Your task to perform on an android device: open the mobile data screen to see how much data has been used Image 0: 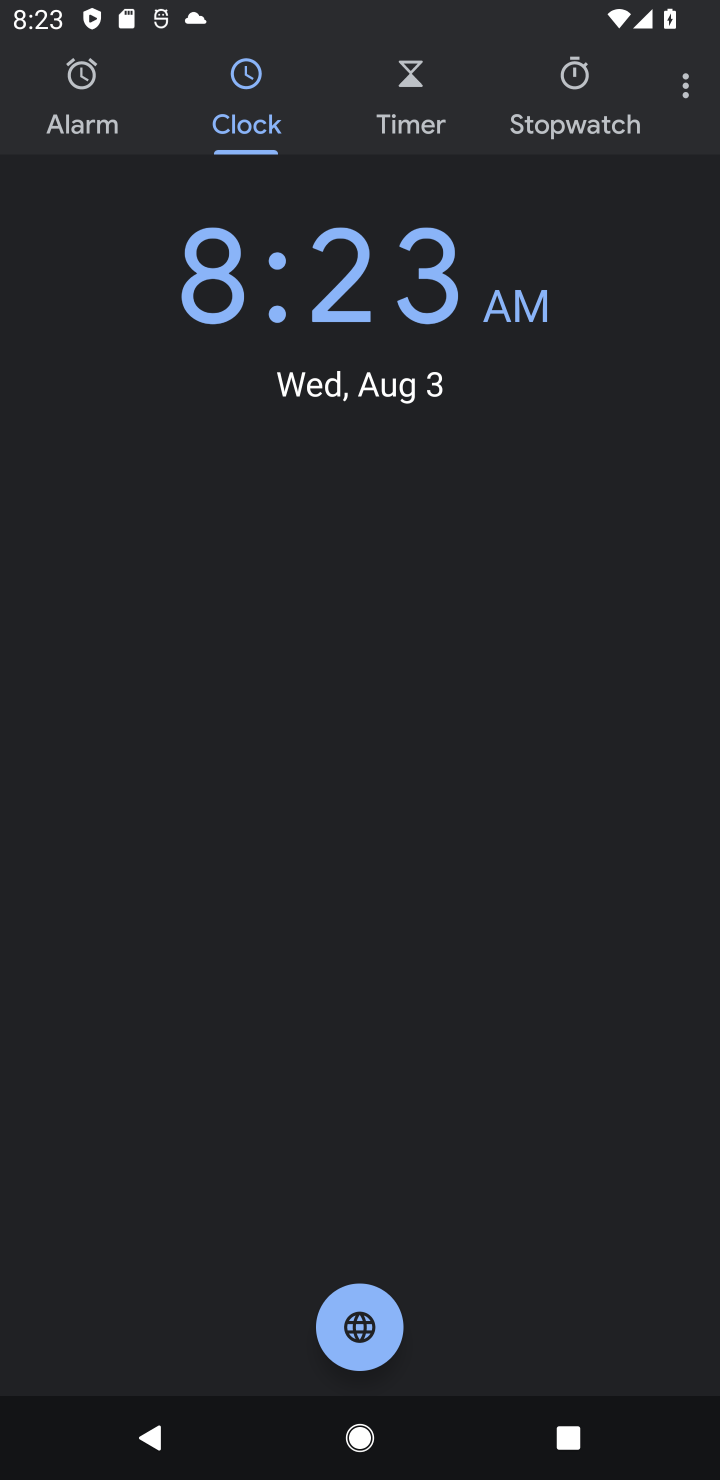
Step 0: press home button
Your task to perform on an android device: open the mobile data screen to see how much data has been used Image 1: 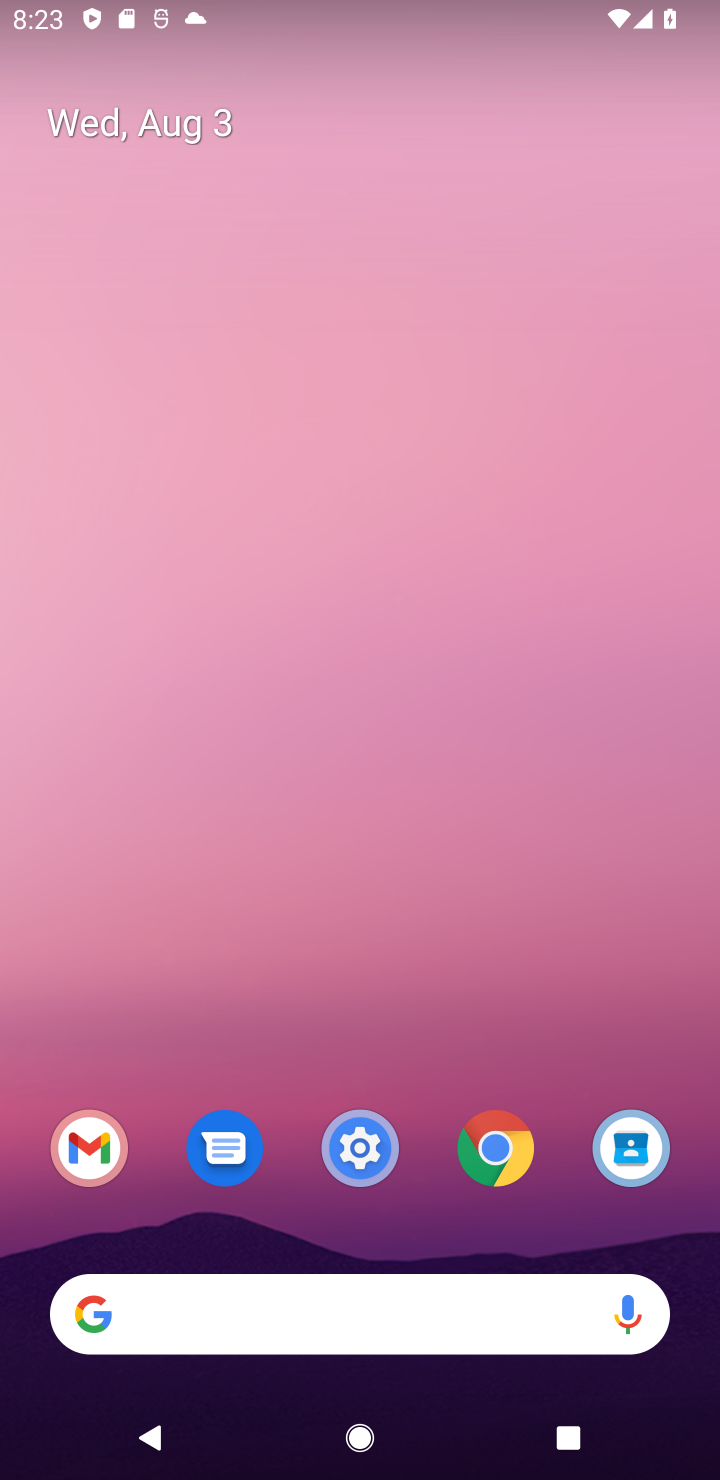
Step 1: click (373, 1149)
Your task to perform on an android device: open the mobile data screen to see how much data has been used Image 2: 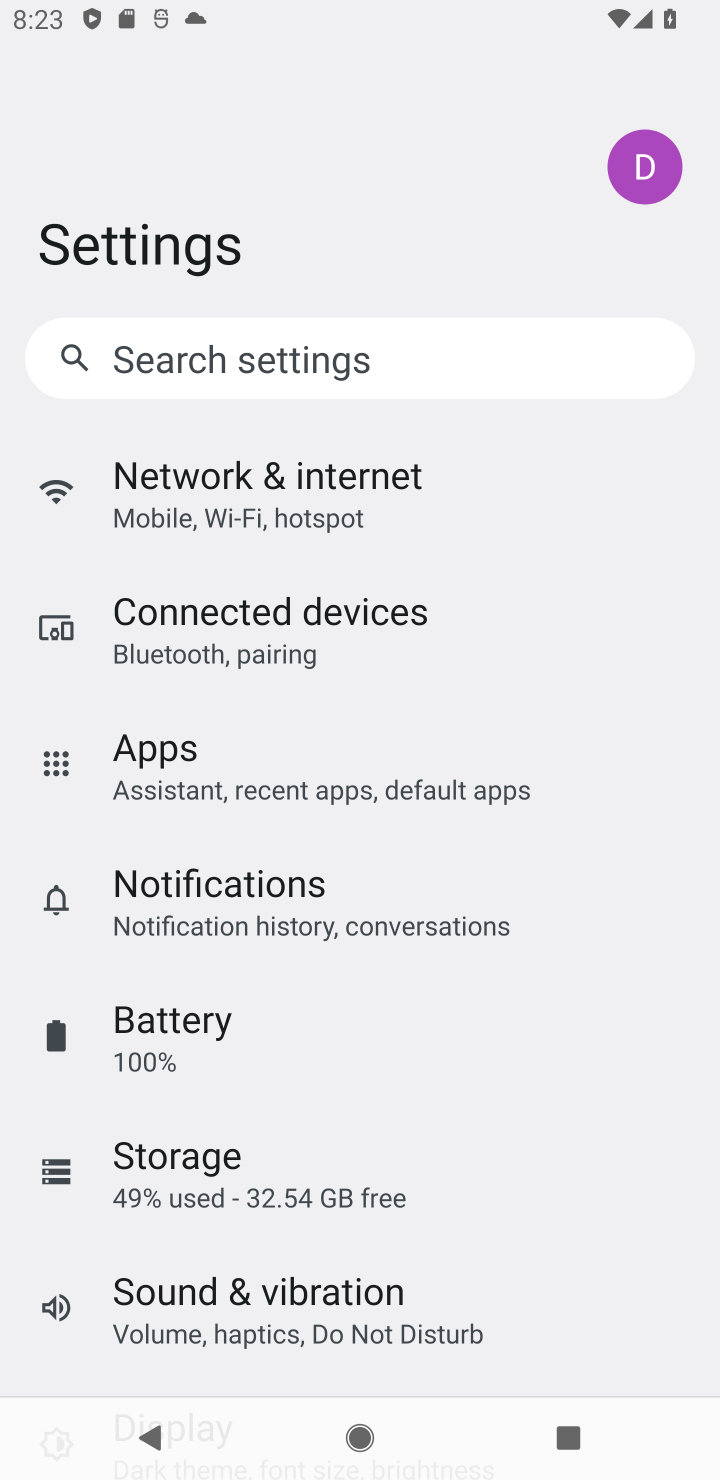
Step 2: click (365, 504)
Your task to perform on an android device: open the mobile data screen to see how much data has been used Image 3: 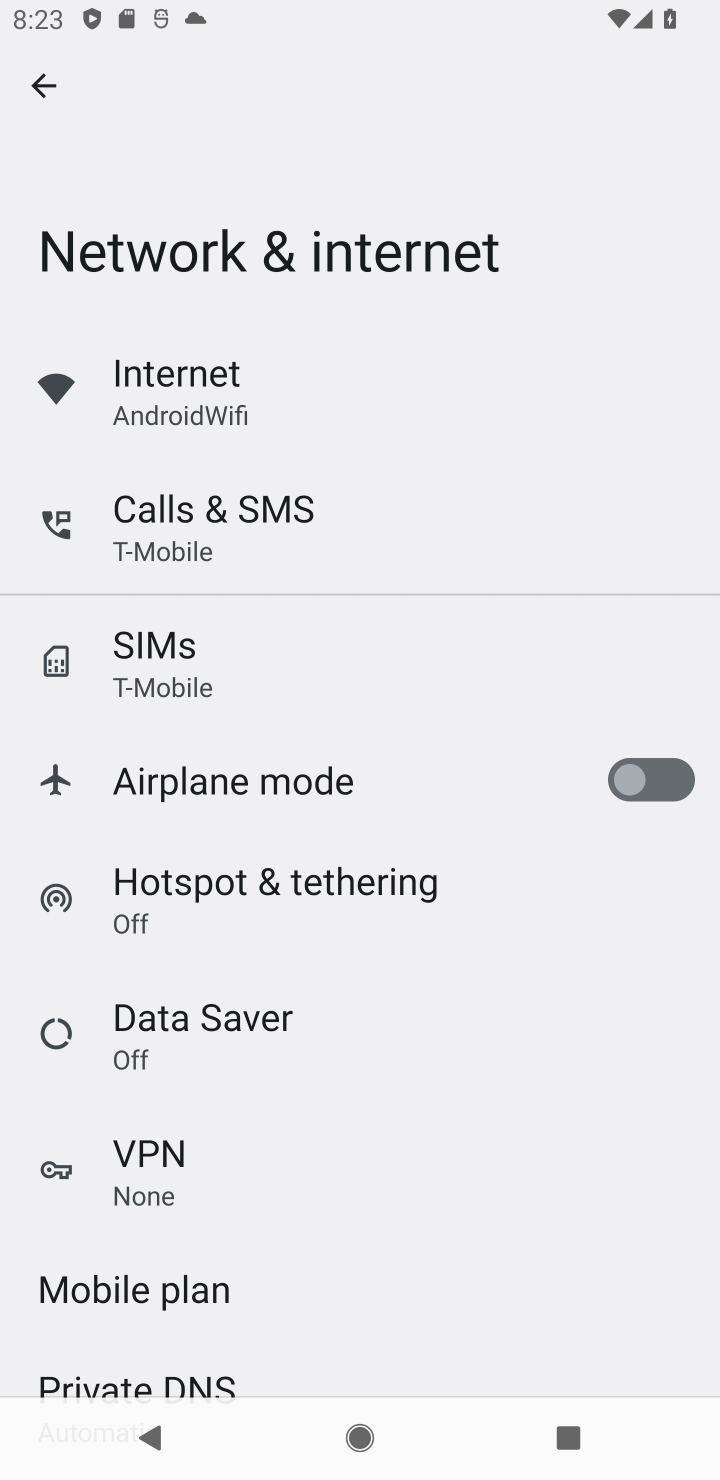
Step 3: drag from (320, 1191) to (273, 553)
Your task to perform on an android device: open the mobile data screen to see how much data has been used Image 4: 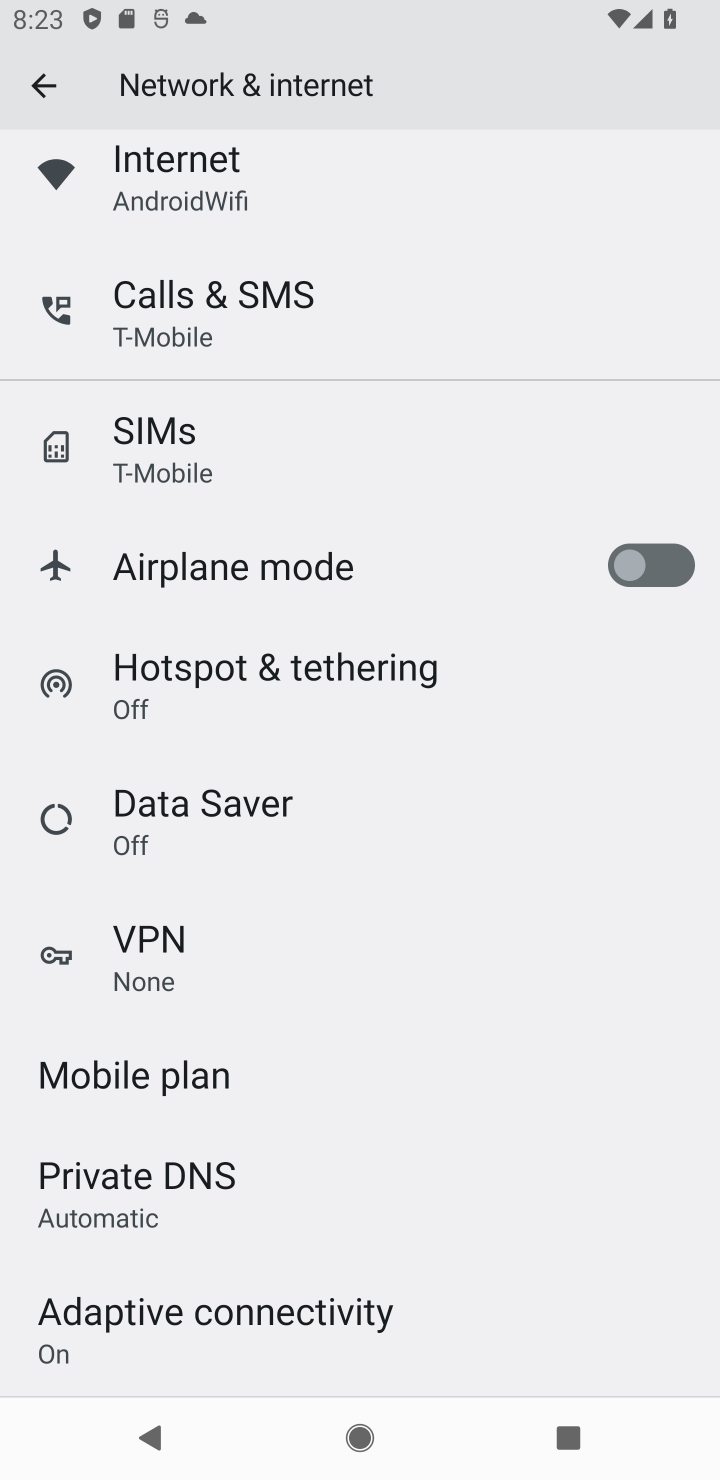
Step 4: click (231, 1096)
Your task to perform on an android device: open the mobile data screen to see how much data has been used Image 5: 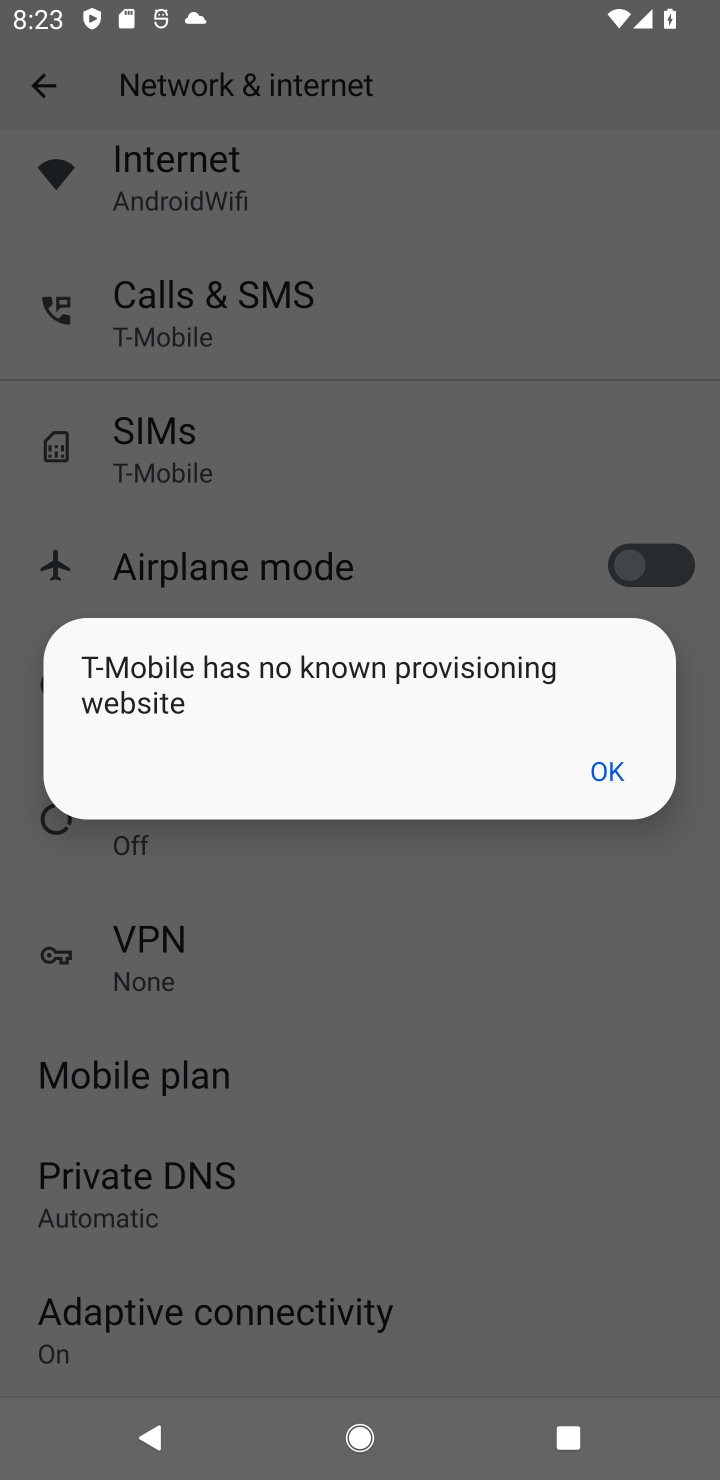
Step 5: task complete